Your task to perform on an android device: turn on airplane mode Image 0: 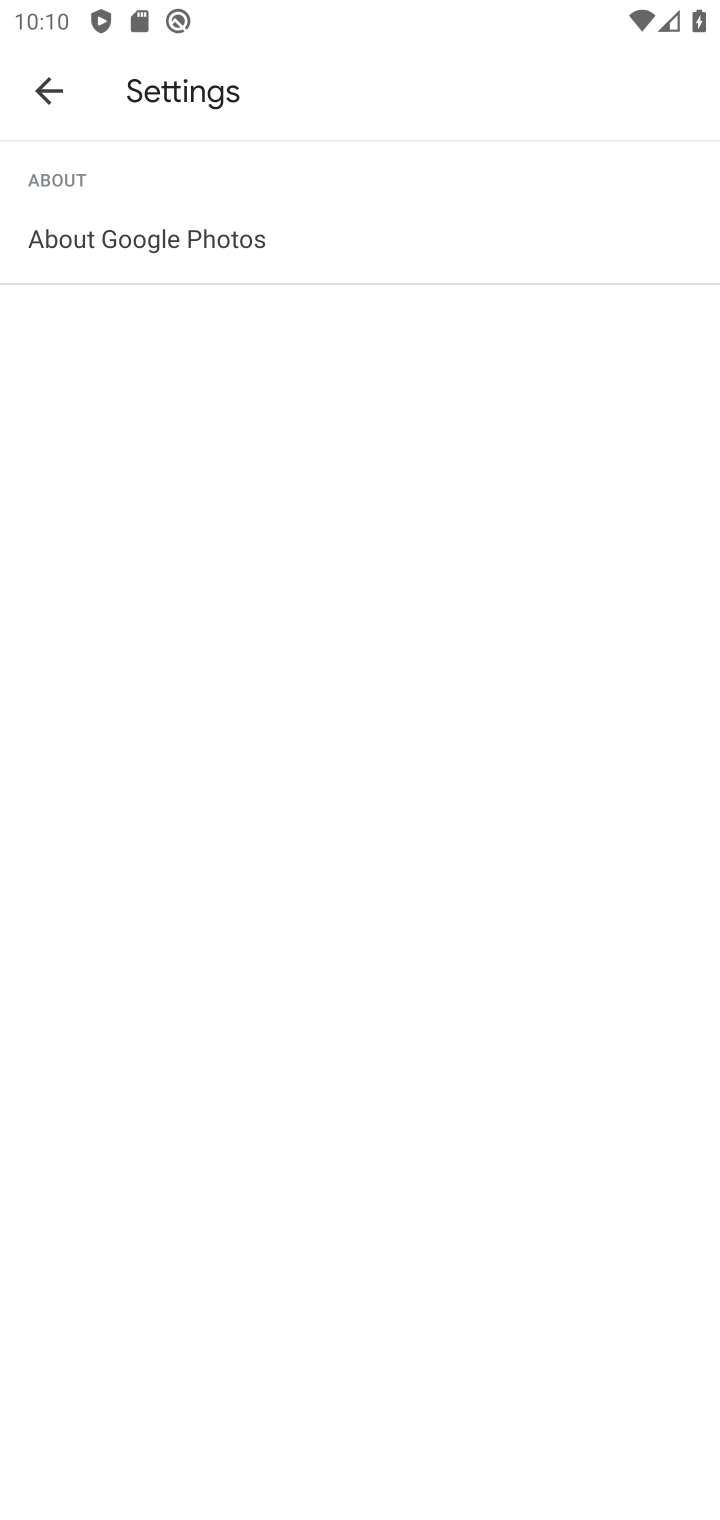
Step 0: press home button
Your task to perform on an android device: turn on airplane mode Image 1: 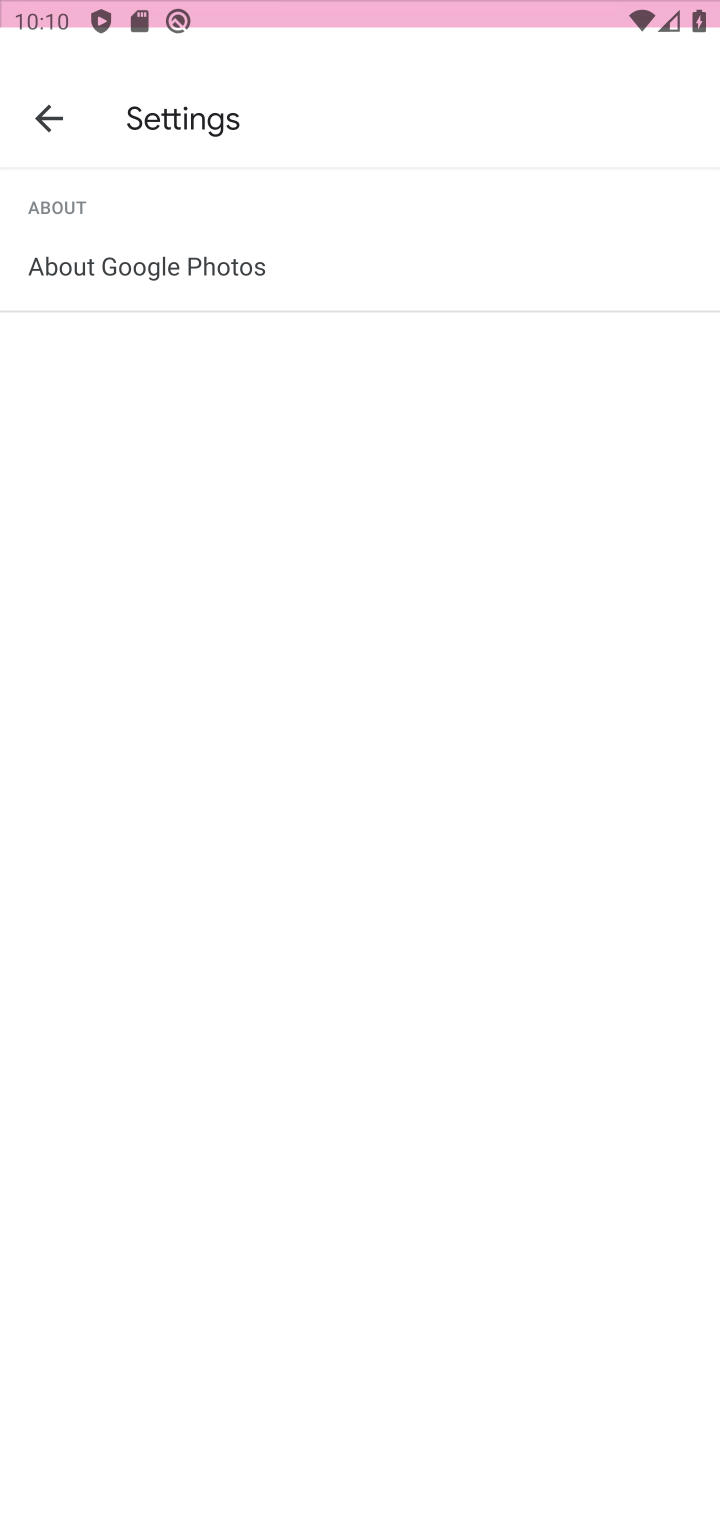
Step 1: drag from (314, 1408) to (357, 443)
Your task to perform on an android device: turn on airplane mode Image 2: 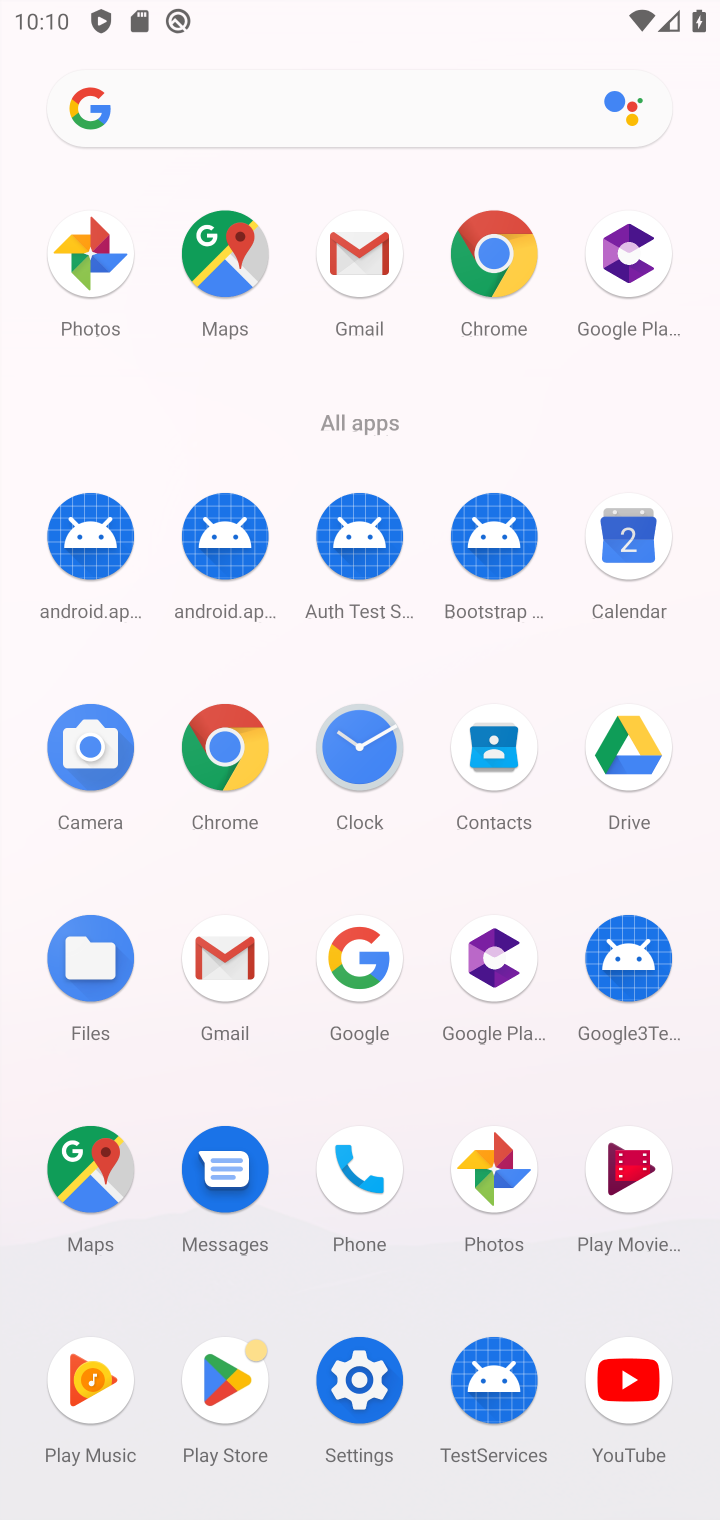
Step 2: click (375, 1395)
Your task to perform on an android device: turn on airplane mode Image 3: 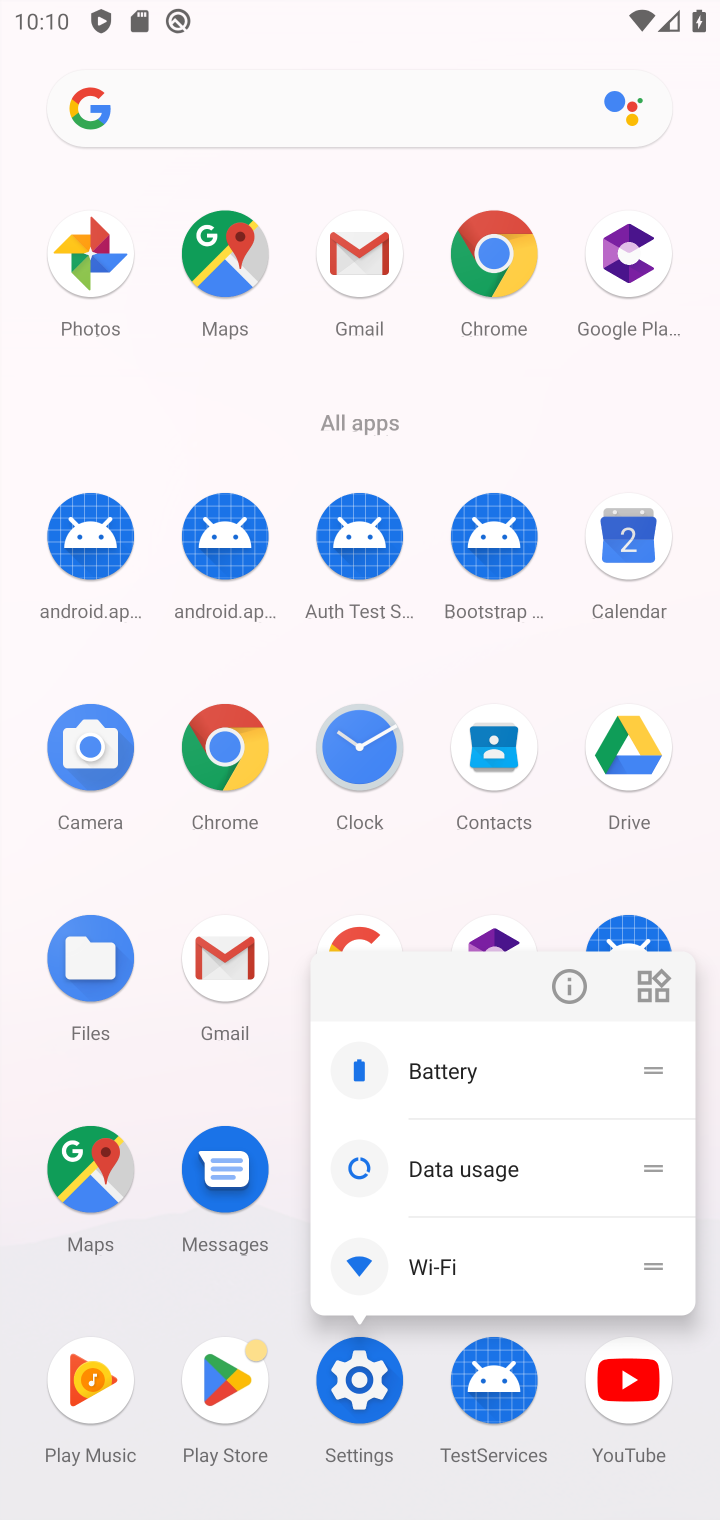
Step 3: click (568, 994)
Your task to perform on an android device: turn on airplane mode Image 4: 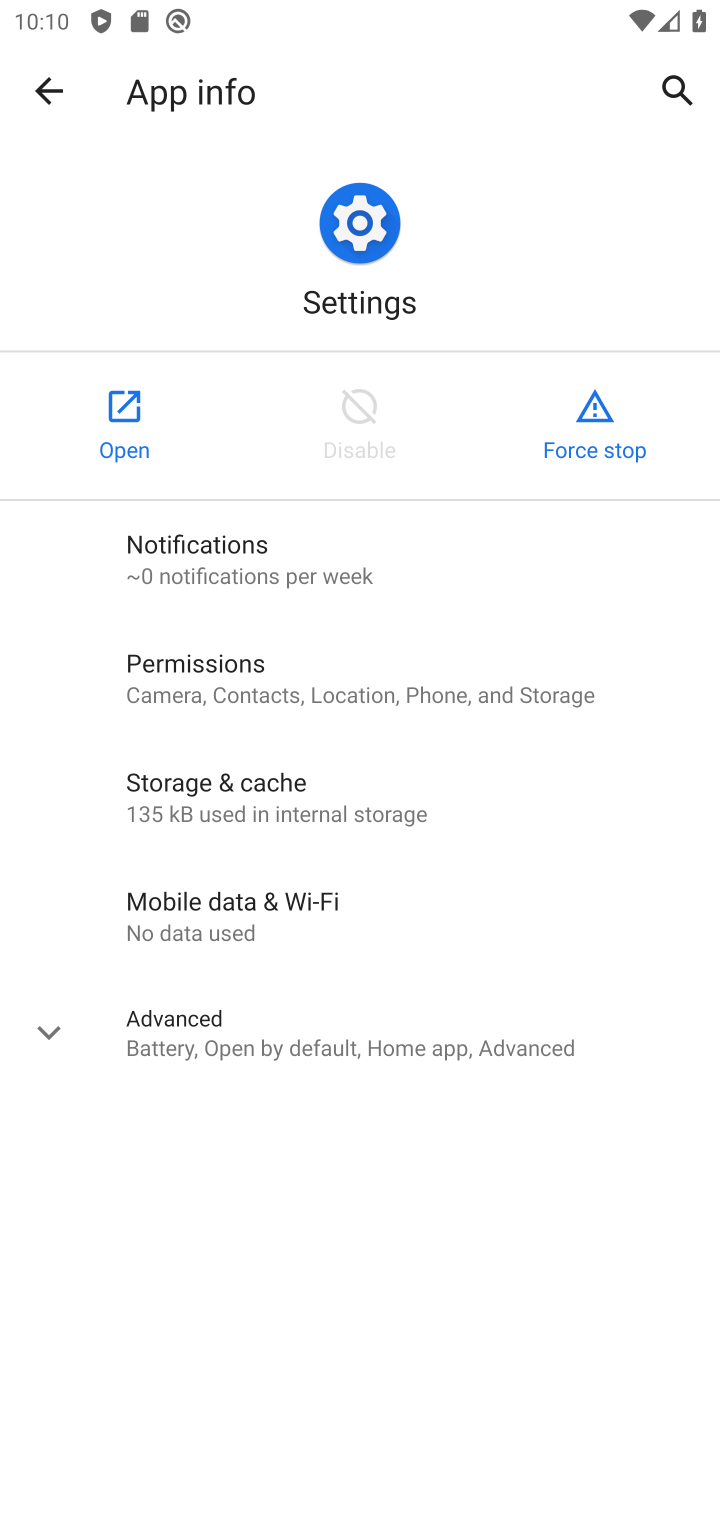
Step 4: click (139, 416)
Your task to perform on an android device: turn on airplane mode Image 5: 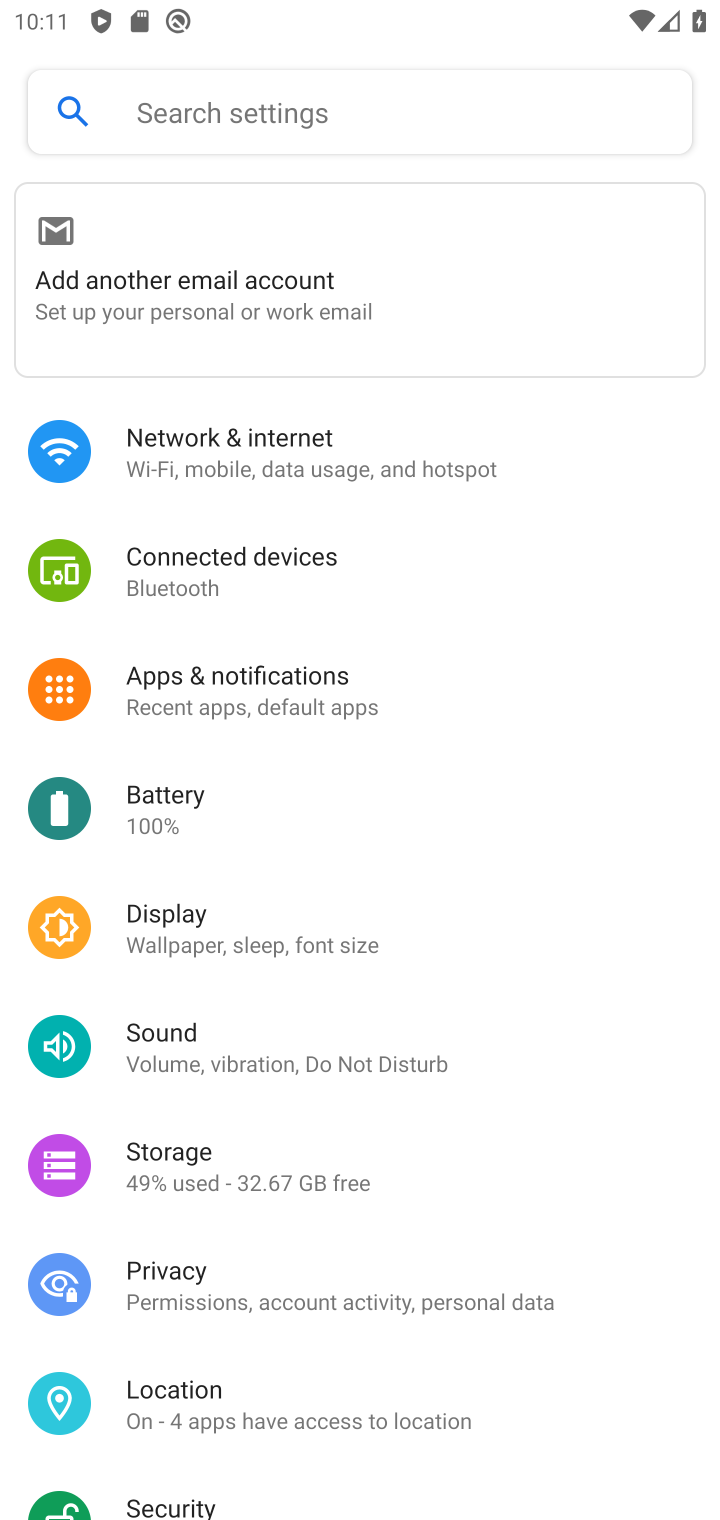
Step 5: click (218, 468)
Your task to perform on an android device: turn on airplane mode Image 6: 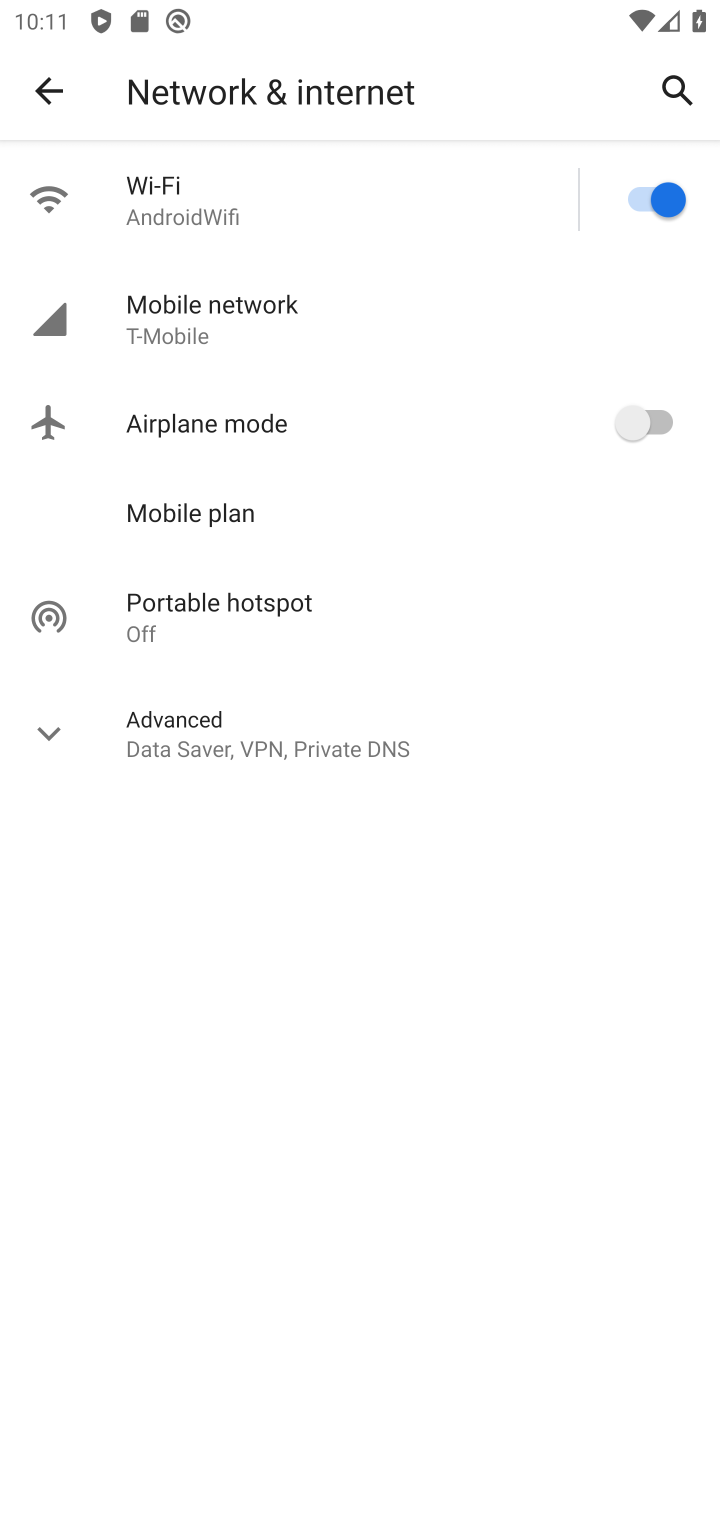
Step 6: click (295, 429)
Your task to perform on an android device: turn on airplane mode Image 7: 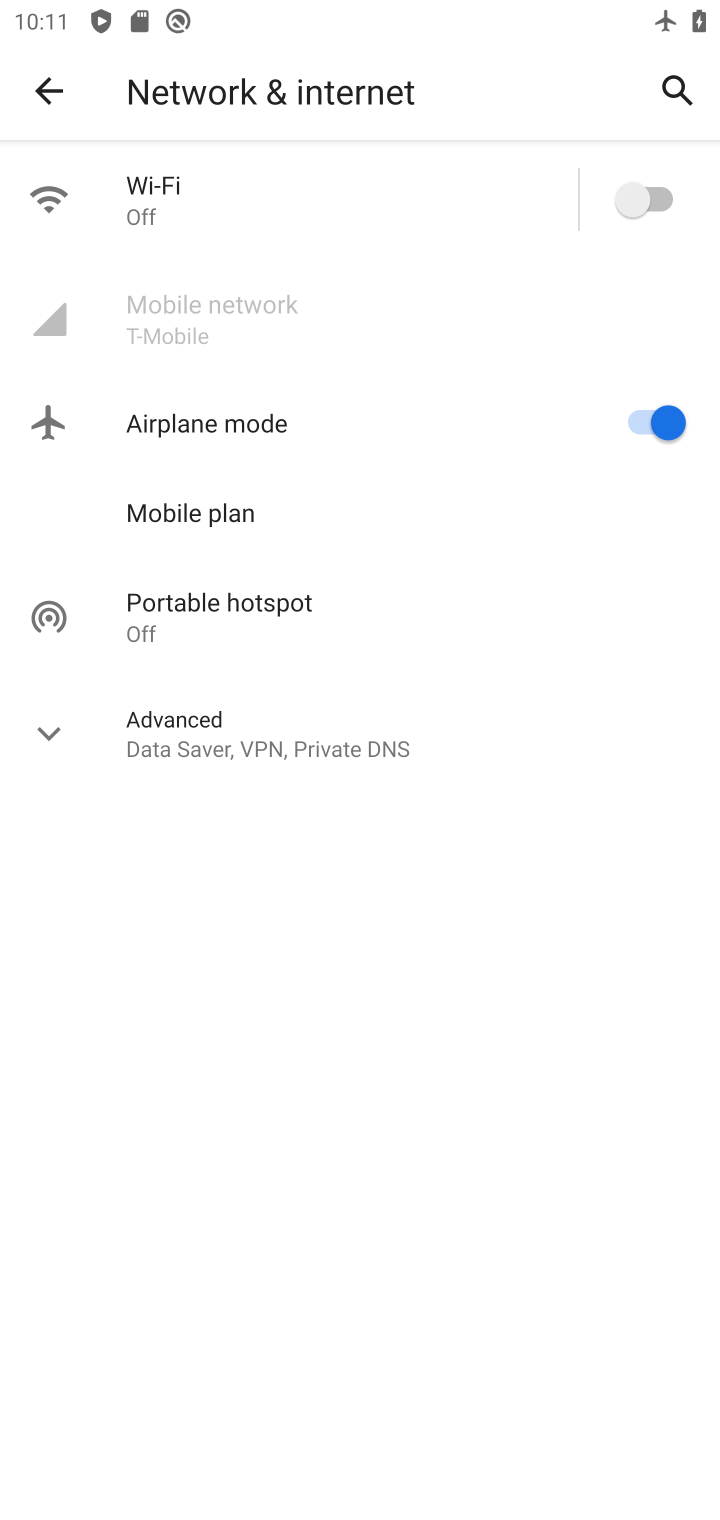
Step 7: task complete